Your task to perform on an android device: Show the shopping cart on target.com. Search for "jbl flip 4" on target.com, select the first entry, and add it to the cart. Image 0: 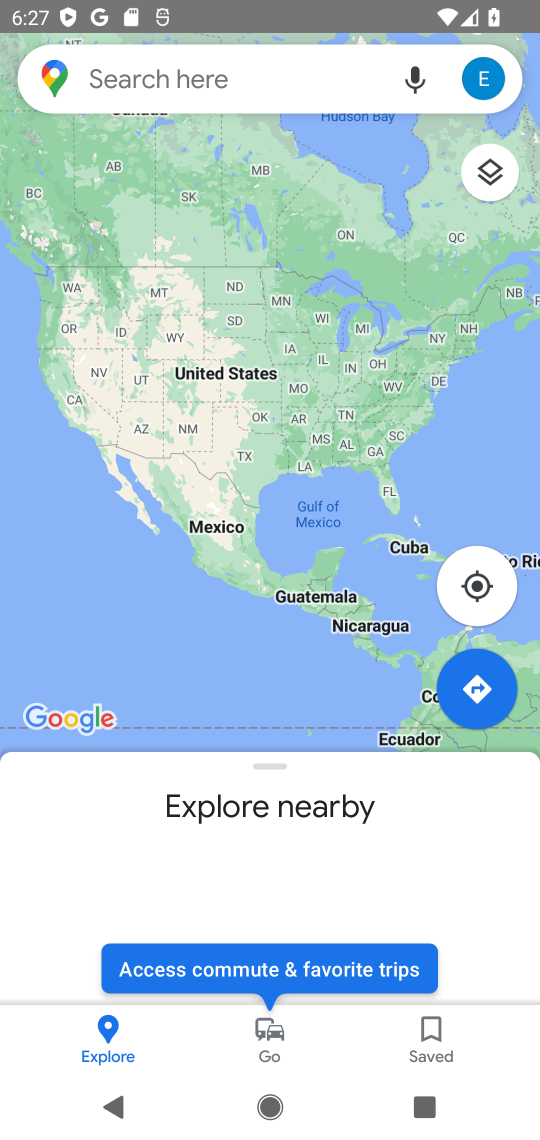
Step 0: press home button
Your task to perform on an android device: Show the shopping cart on target.com. Search for "jbl flip 4" on target.com, select the first entry, and add it to the cart. Image 1: 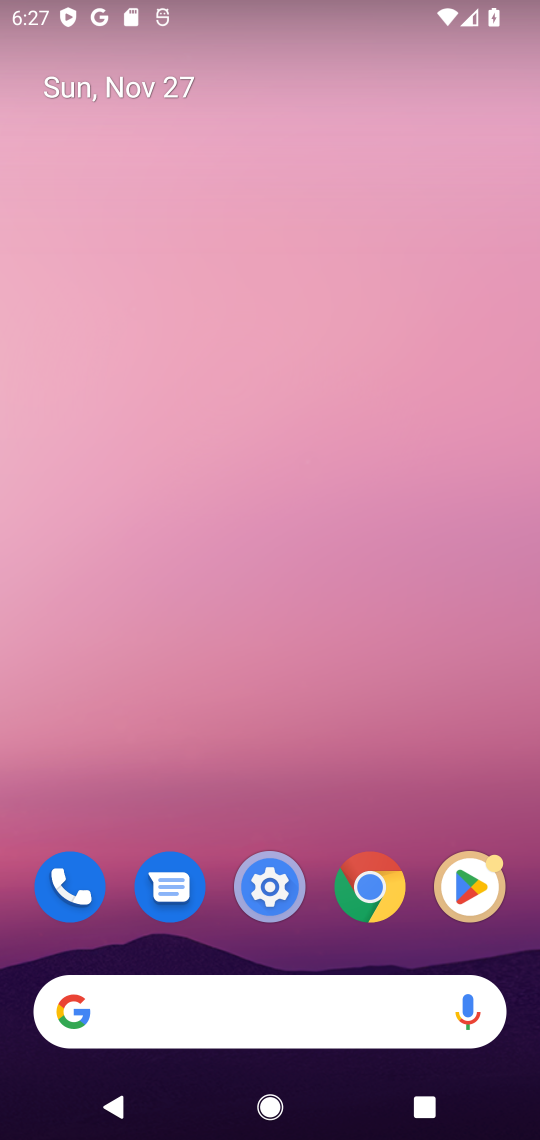
Step 1: click (249, 1032)
Your task to perform on an android device: Show the shopping cart on target.com. Search for "jbl flip 4" on target.com, select the first entry, and add it to the cart. Image 2: 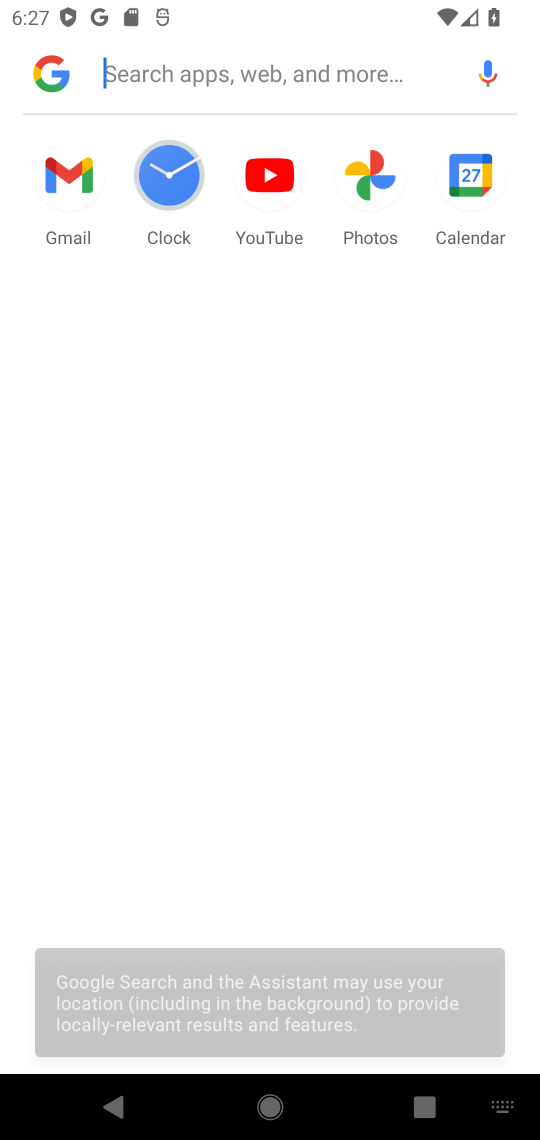
Step 2: type "raget"
Your task to perform on an android device: Show the shopping cart on target.com. Search for "jbl flip 4" on target.com, select the first entry, and add it to the cart. Image 3: 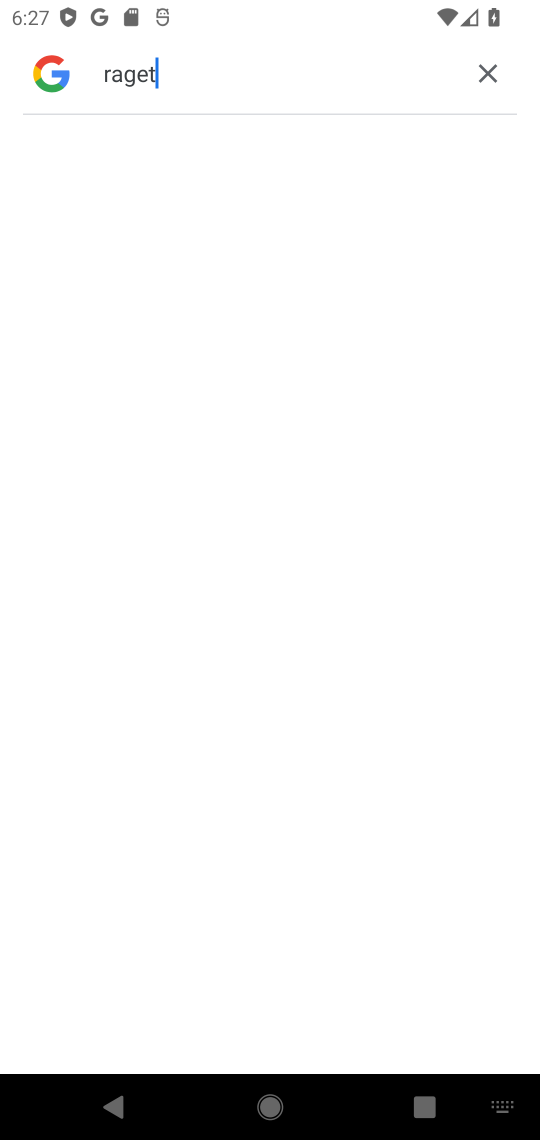
Step 3: press home button
Your task to perform on an android device: Show the shopping cart on target.com. Search for "jbl flip 4" on target.com, select the first entry, and add it to the cart. Image 4: 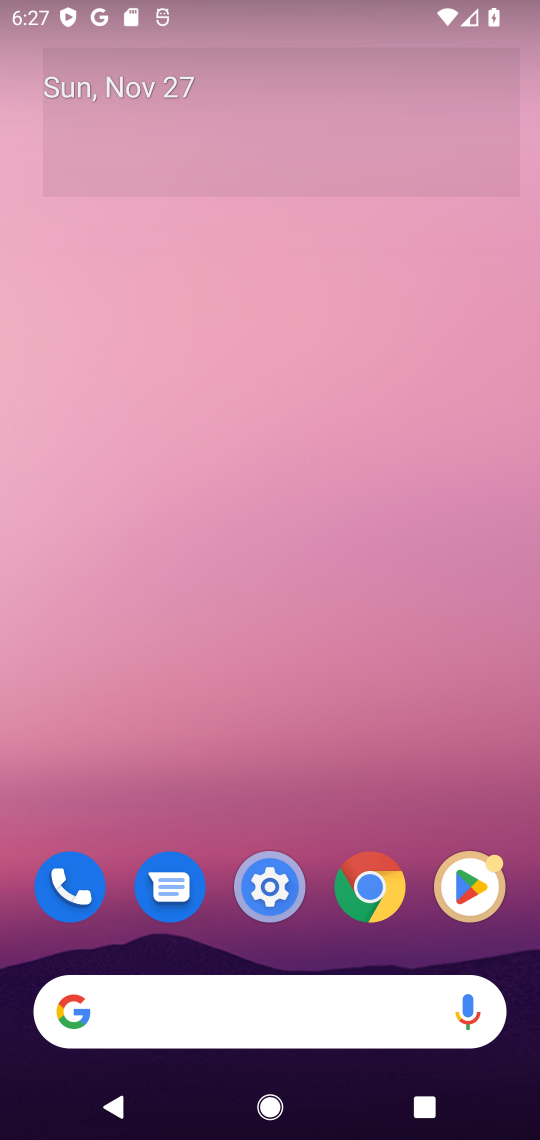
Step 4: click (214, 999)
Your task to perform on an android device: Show the shopping cart on target.com. Search for "jbl flip 4" on target.com, select the first entry, and add it to the cart. Image 5: 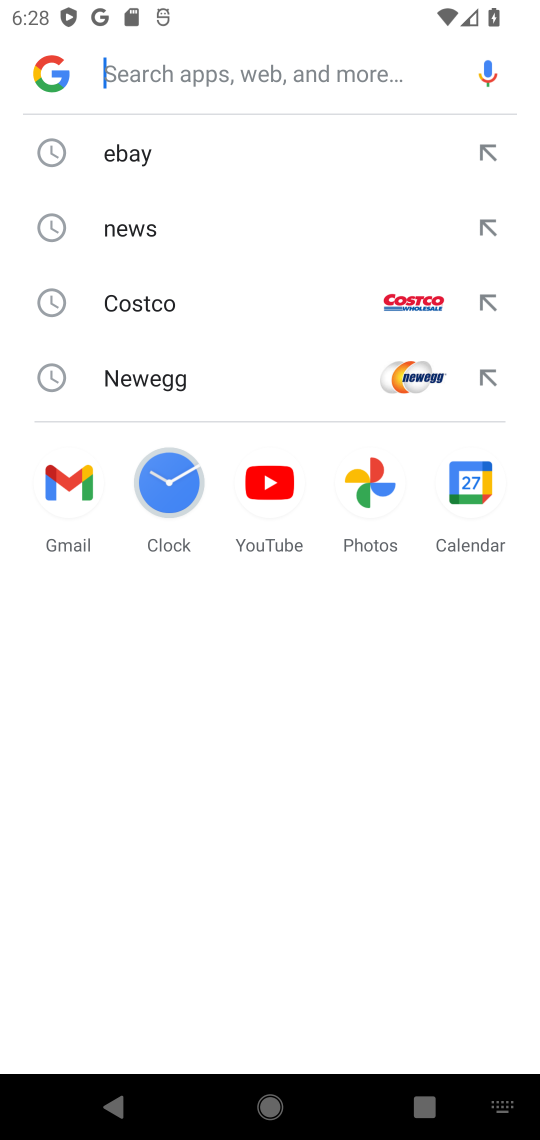
Step 5: type "target"
Your task to perform on an android device: Show the shopping cart on target.com. Search for "jbl flip 4" on target.com, select the first entry, and add it to the cart. Image 6: 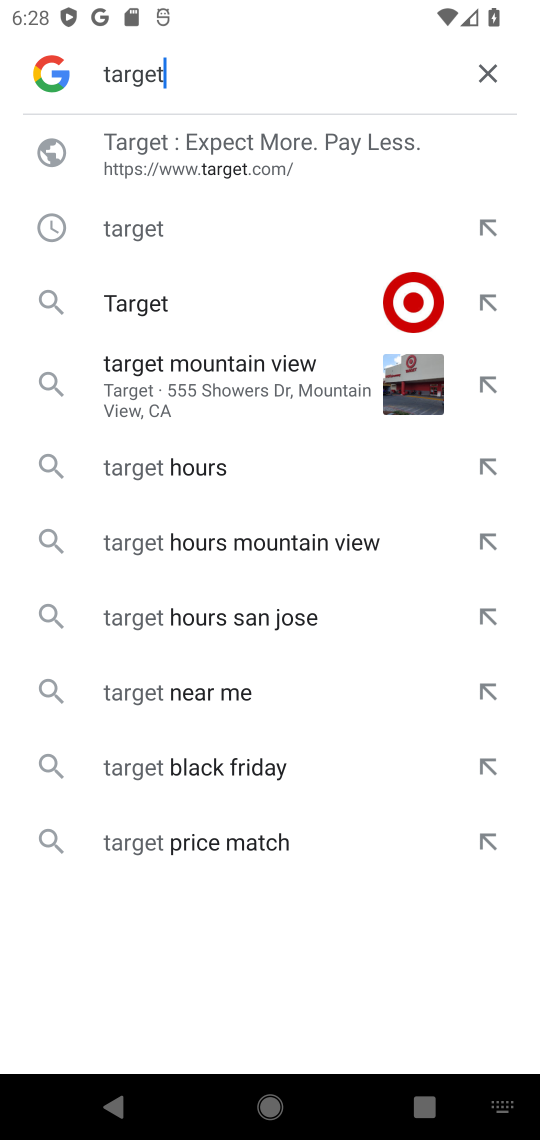
Step 6: click (230, 306)
Your task to perform on an android device: Show the shopping cart on target.com. Search for "jbl flip 4" on target.com, select the first entry, and add it to the cart. Image 7: 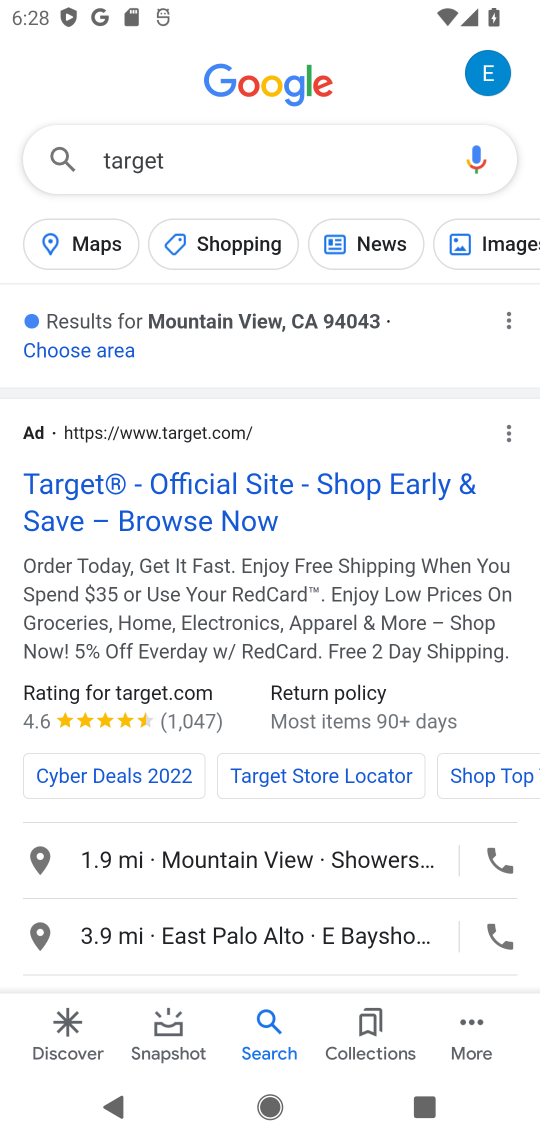
Step 7: press home button
Your task to perform on an android device: Show the shopping cart on target.com. Search for "jbl flip 4" on target.com, select the first entry, and add it to the cart. Image 8: 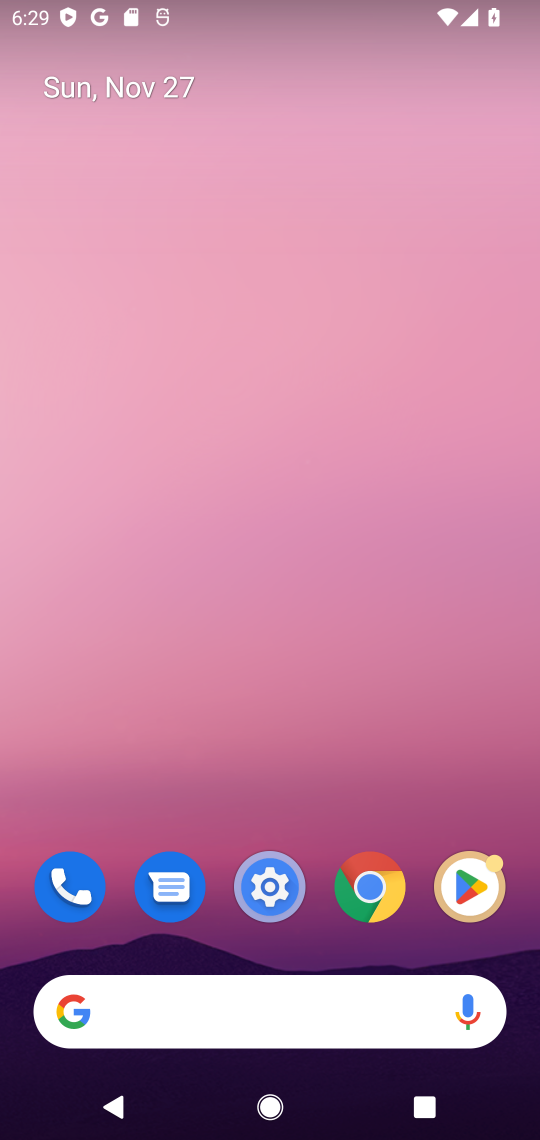
Step 8: click (225, 997)
Your task to perform on an android device: Show the shopping cart on target.com. Search for "jbl flip 4" on target.com, select the first entry, and add it to the cart. Image 9: 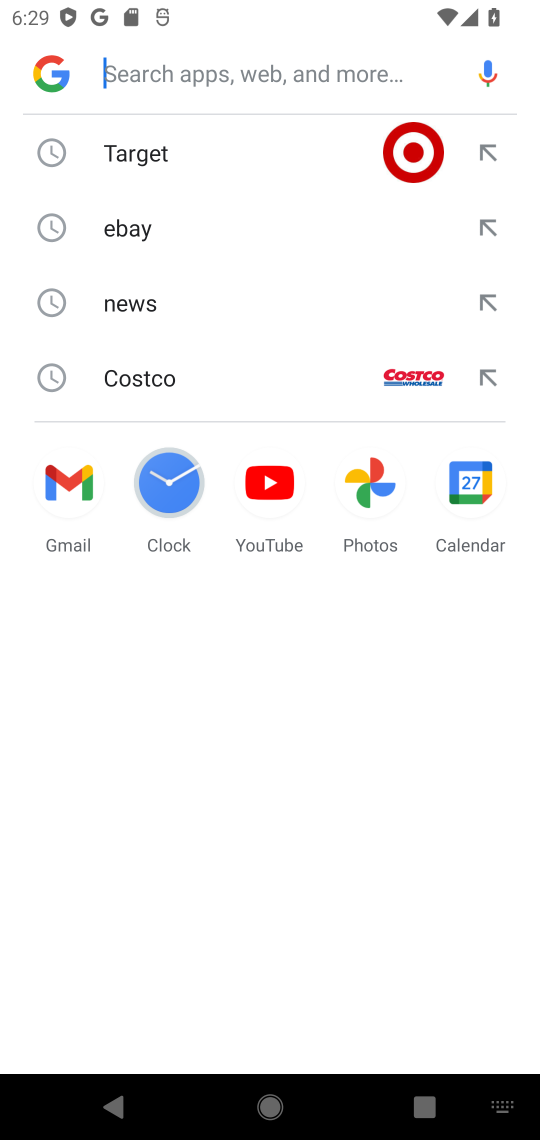
Step 9: type "target"
Your task to perform on an android device: Show the shopping cart on target.com. Search for "jbl flip 4" on target.com, select the first entry, and add it to the cart. Image 10: 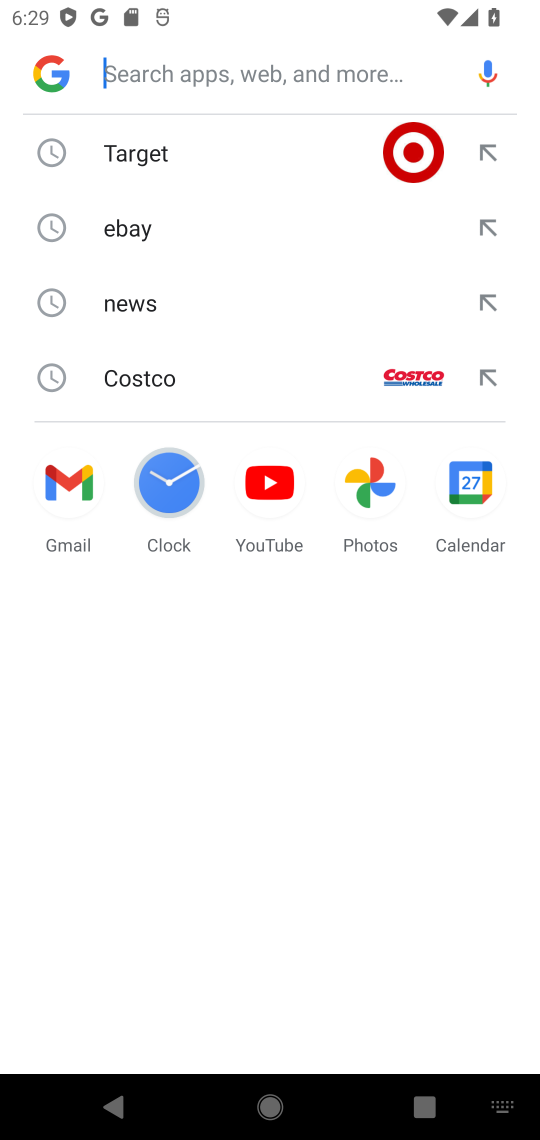
Step 10: click (204, 157)
Your task to perform on an android device: Show the shopping cart on target.com. Search for "jbl flip 4" on target.com, select the first entry, and add it to the cart. Image 11: 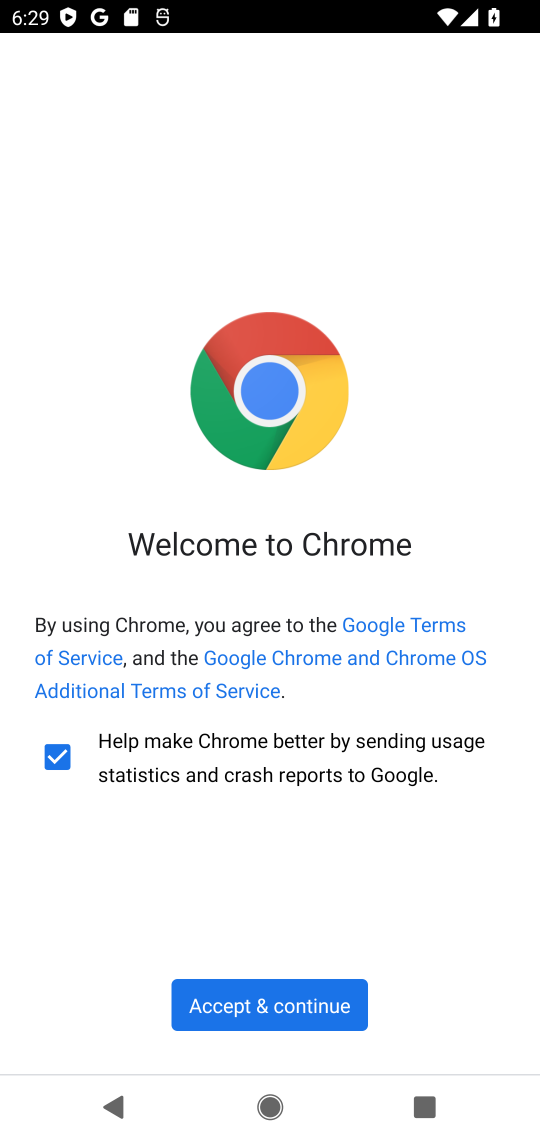
Step 11: click (216, 987)
Your task to perform on an android device: Show the shopping cart on target.com. Search for "jbl flip 4" on target.com, select the first entry, and add it to the cart. Image 12: 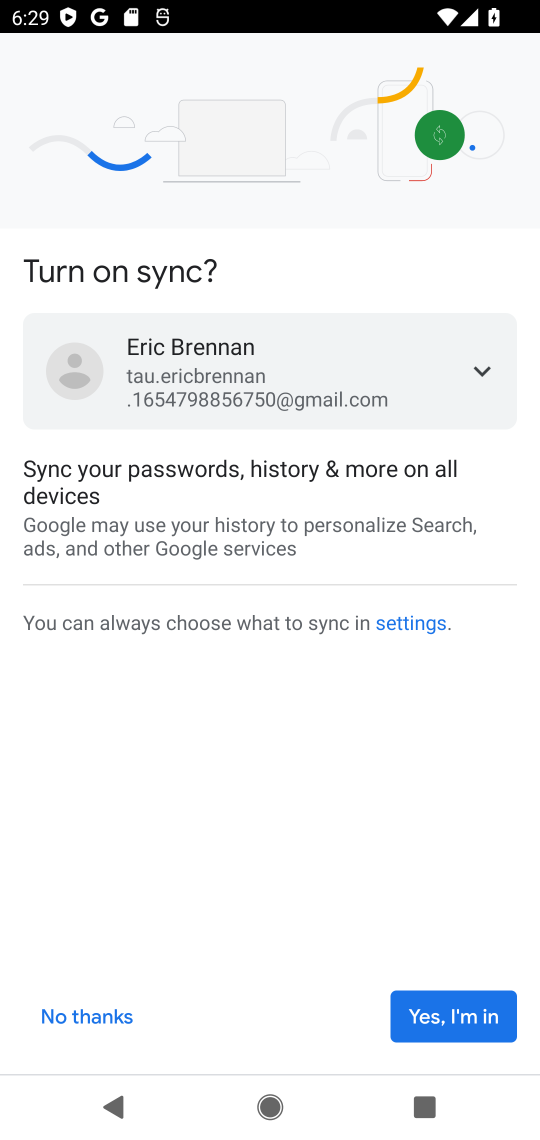
Step 12: click (440, 1012)
Your task to perform on an android device: Show the shopping cart on target.com. Search for "jbl flip 4" on target.com, select the first entry, and add it to the cart. Image 13: 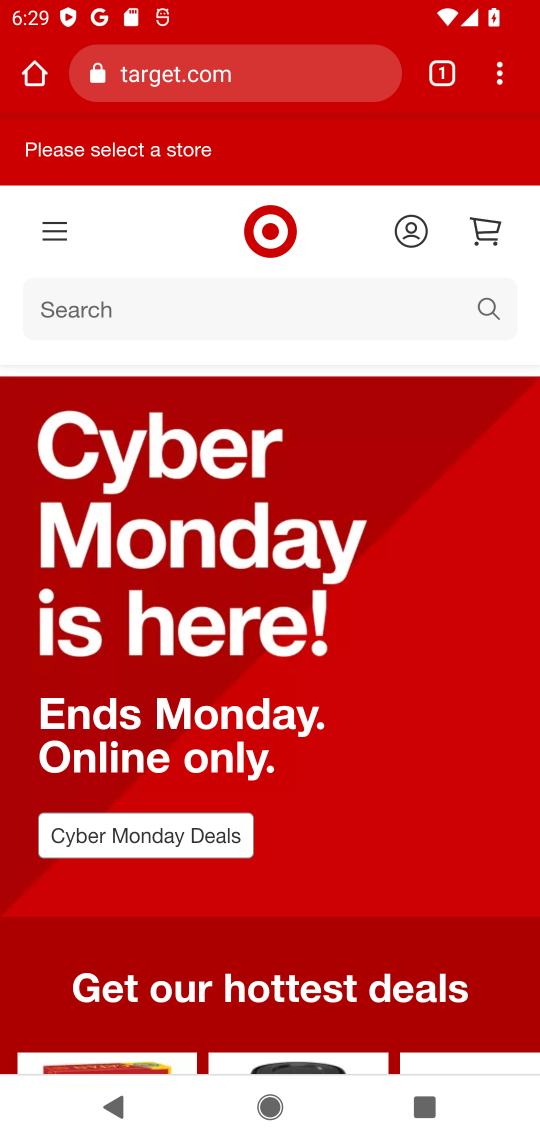
Step 13: click (219, 306)
Your task to perform on an android device: Show the shopping cart on target.com. Search for "jbl flip 4" on target.com, select the first entry, and add it to the cart. Image 14: 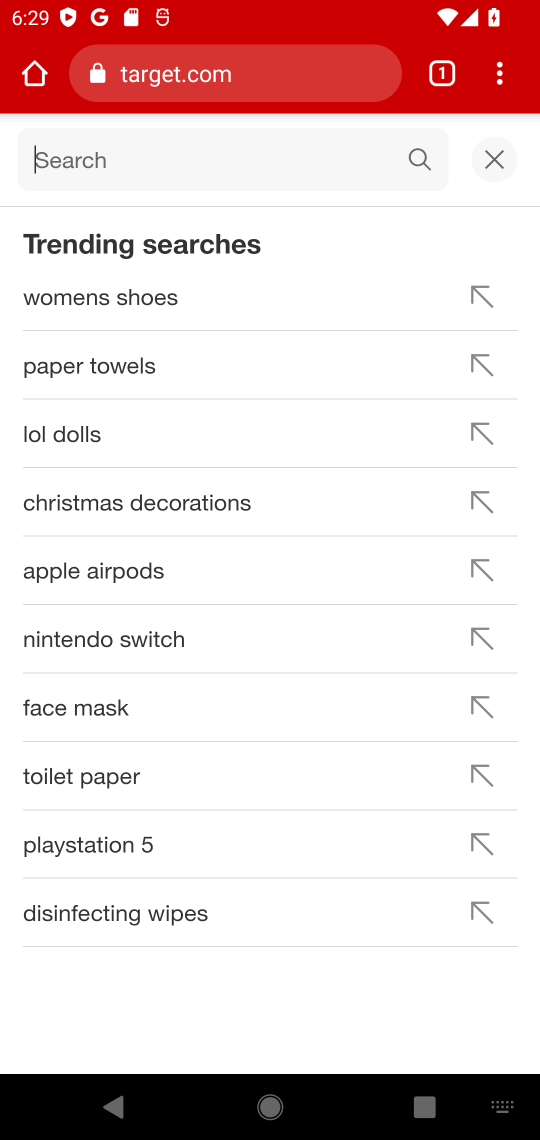
Step 14: type "jbl flip 4"
Your task to perform on an android device: Show the shopping cart on target.com. Search for "jbl flip 4" on target.com, select the first entry, and add it to the cart. Image 15: 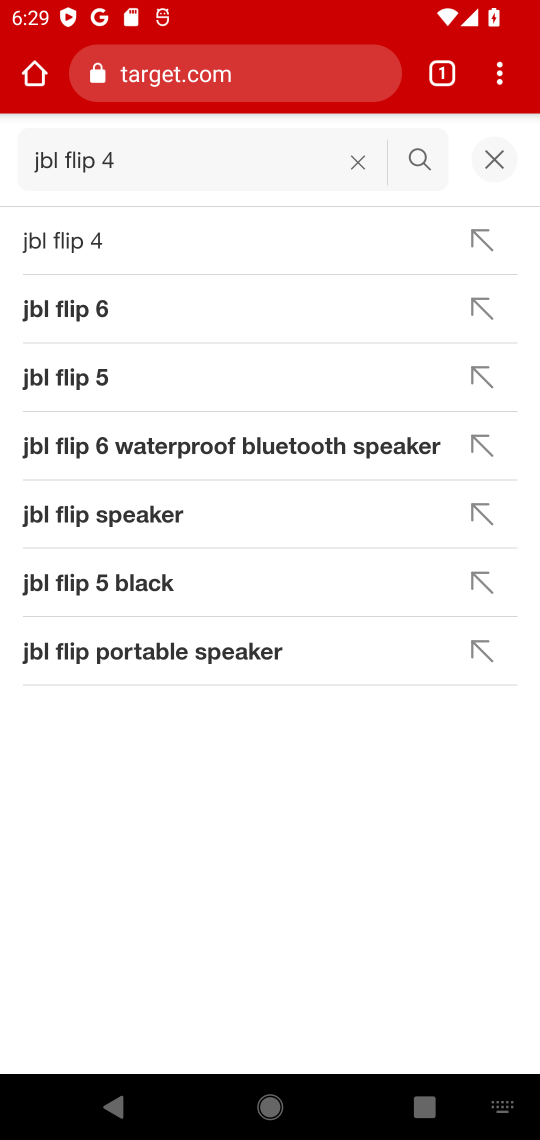
Step 15: click (301, 258)
Your task to perform on an android device: Show the shopping cart on target.com. Search for "jbl flip 4" on target.com, select the first entry, and add it to the cart. Image 16: 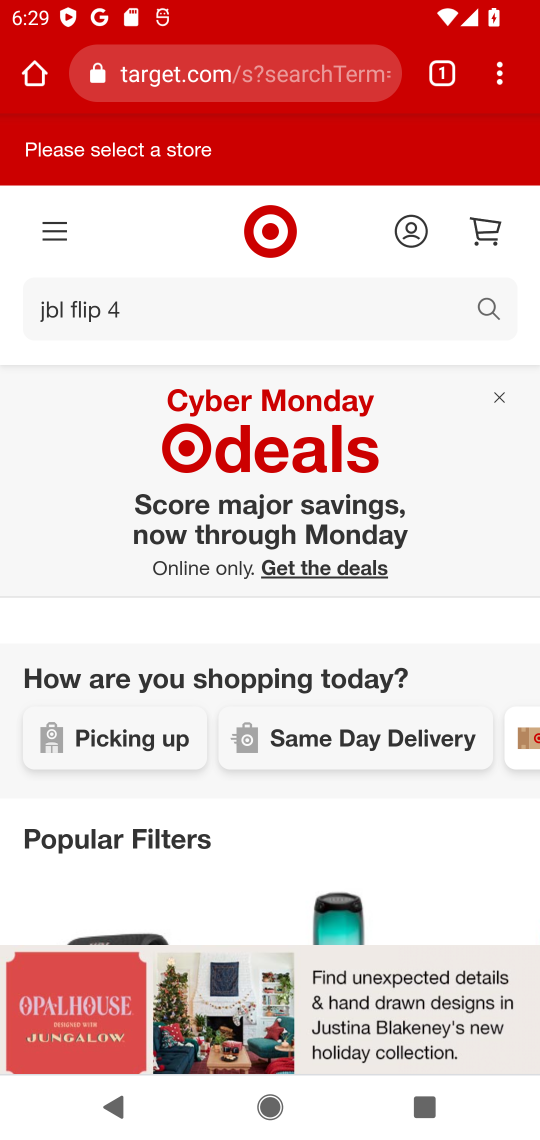
Step 16: task complete